Your task to perform on an android device: Empty the shopping cart on amazon.com. Image 0: 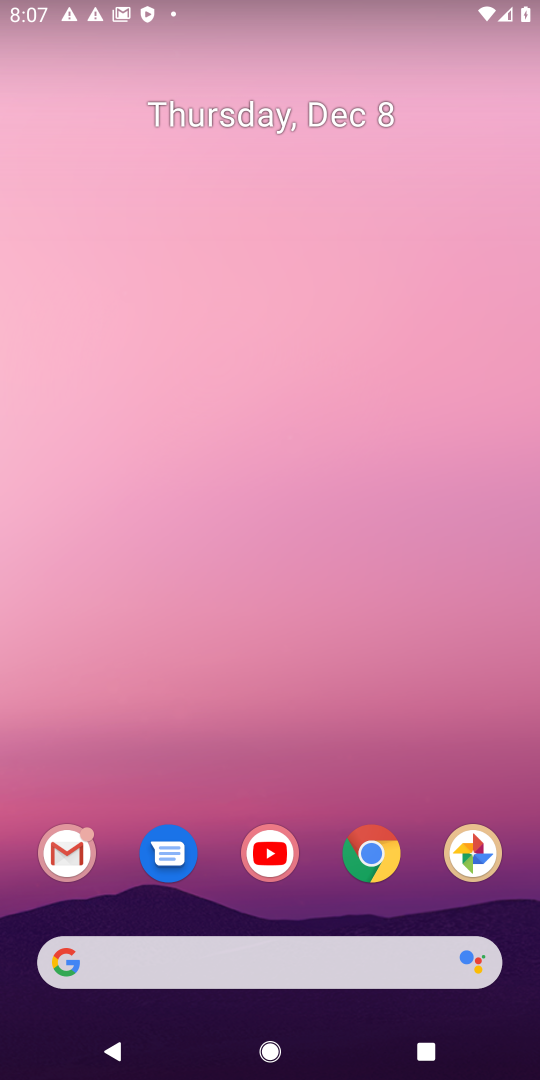
Step 0: click (102, 958)
Your task to perform on an android device: Empty the shopping cart on amazon.com. Image 1: 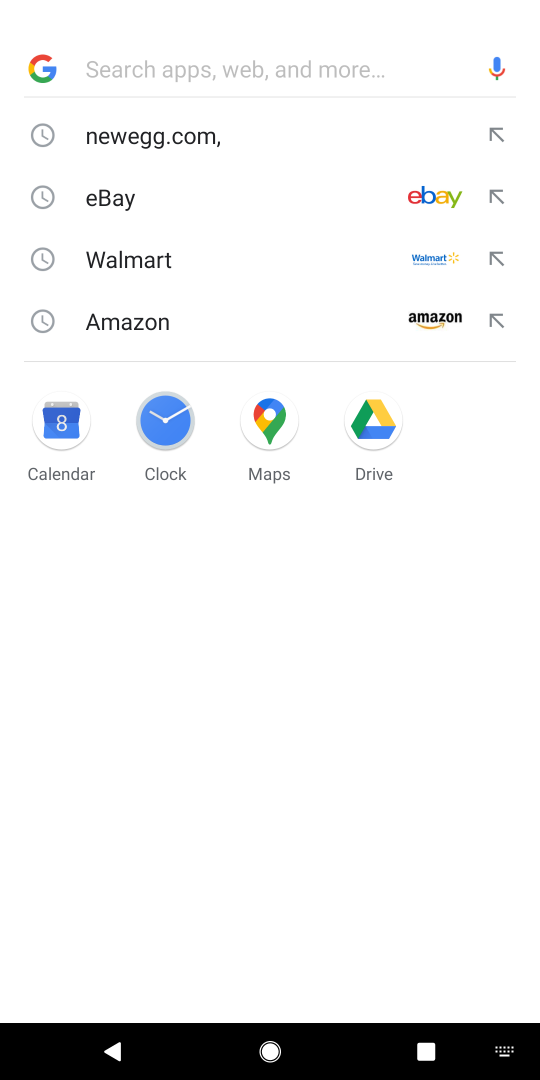
Step 1: click (129, 320)
Your task to perform on an android device: Empty the shopping cart on amazon.com. Image 2: 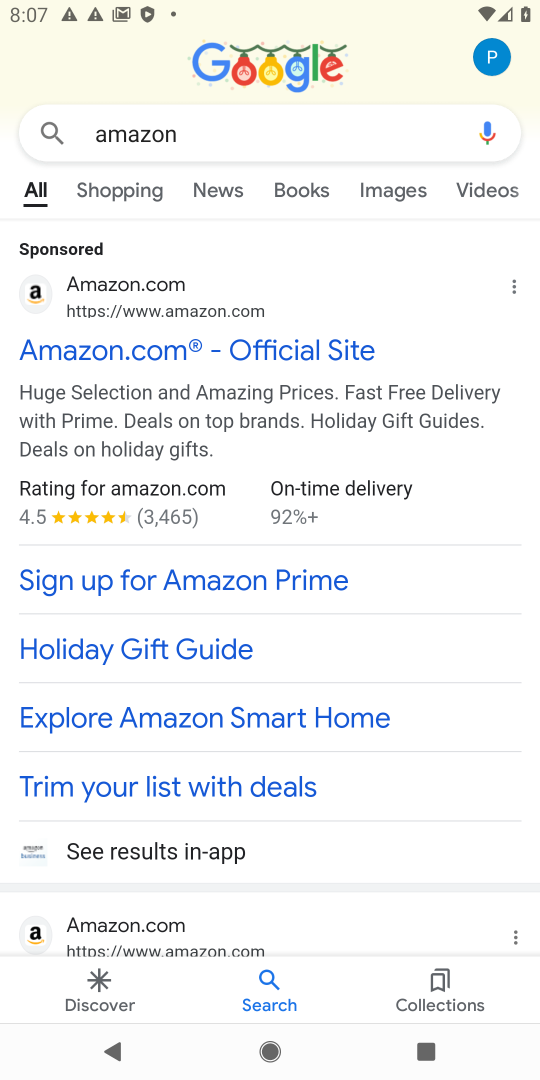
Step 2: click (98, 345)
Your task to perform on an android device: Empty the shopping cart on amazon.com. Image 3: 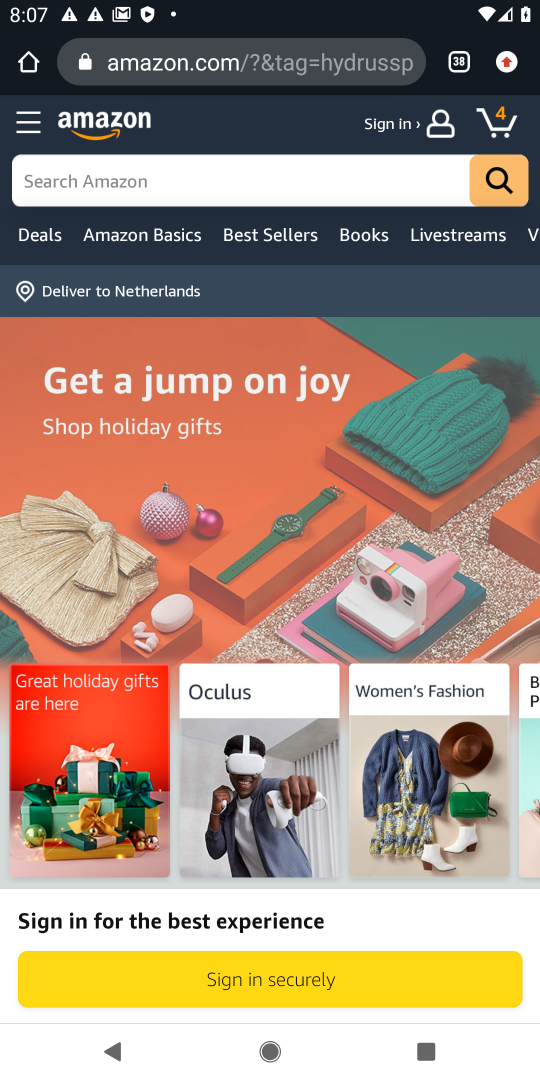
Step 3: click (495, 123)
Your task to perform on an android device: Empty the shopping cart on amazon.com. Image 4: 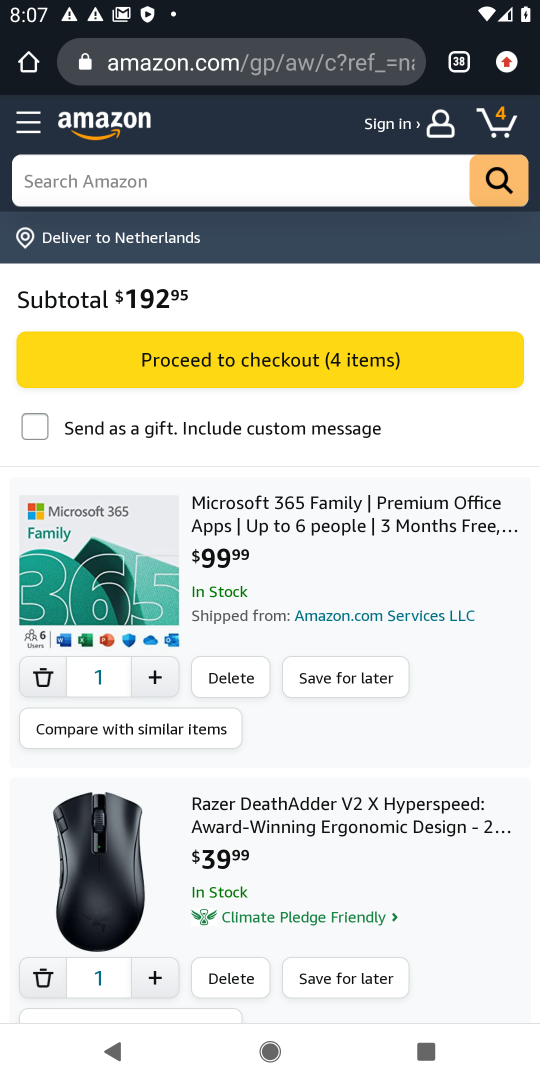
Step 4: click (222, 676)
Your task to perform on an android device: Empty the shopping cart on amazon.com. Image 5: 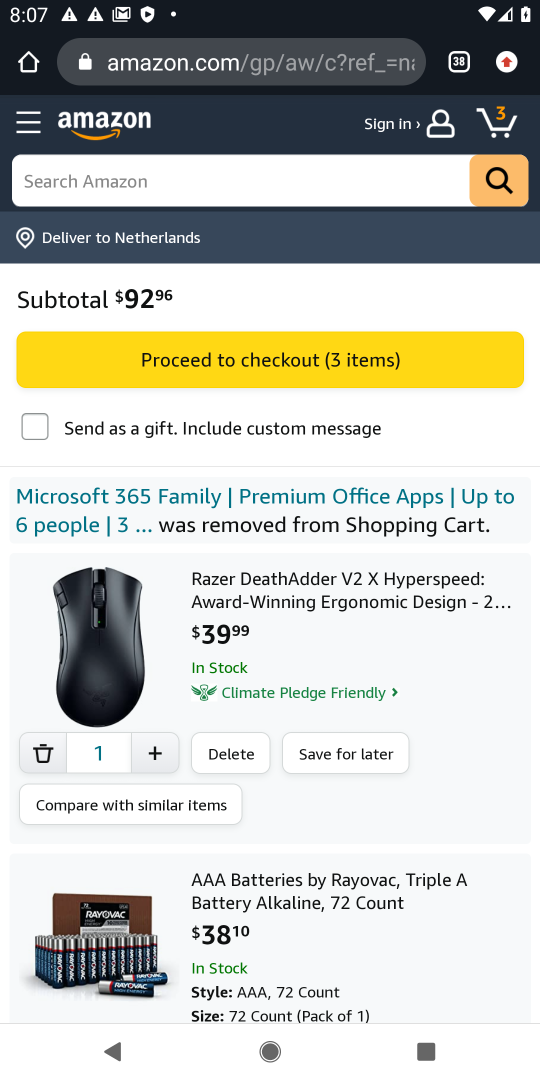
Step 5: click (236, 759)
Your task to perform on an android device: Empty the shopping cart on amazon.com. Image 6: 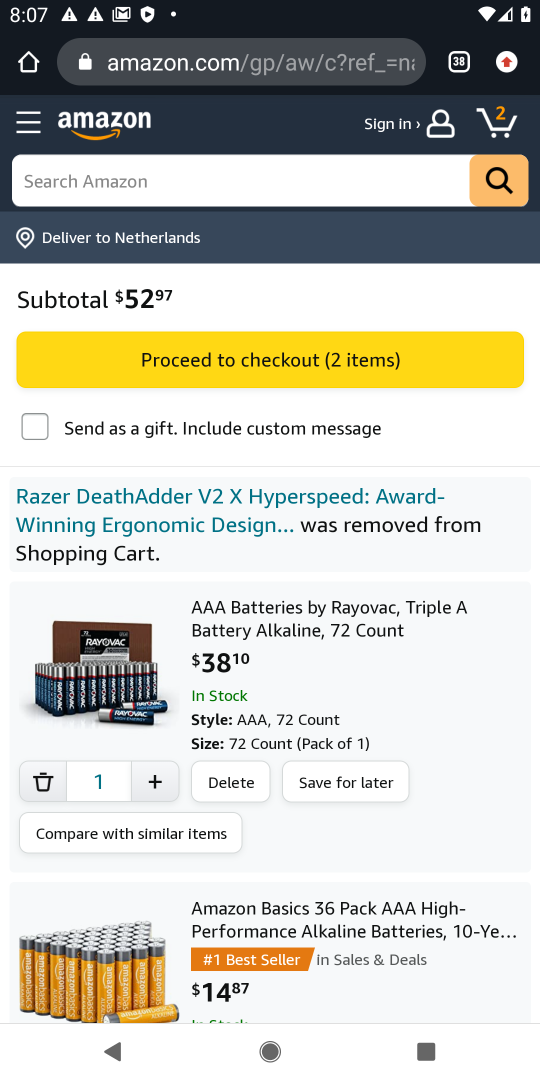
Step 6: click (224, 779)
Your task to perform on an android device: Empty the shopping cart on amazon.com. Image 7: 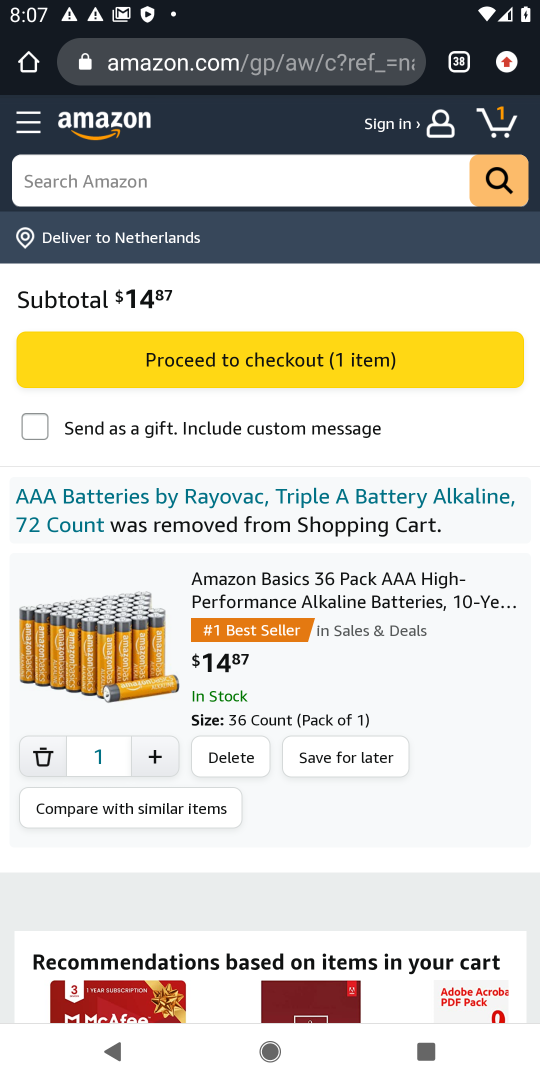
Step 7: click (234, 759)
Your task to perform on an android device: Empty the shopping cart on amazon.com. Image 8: 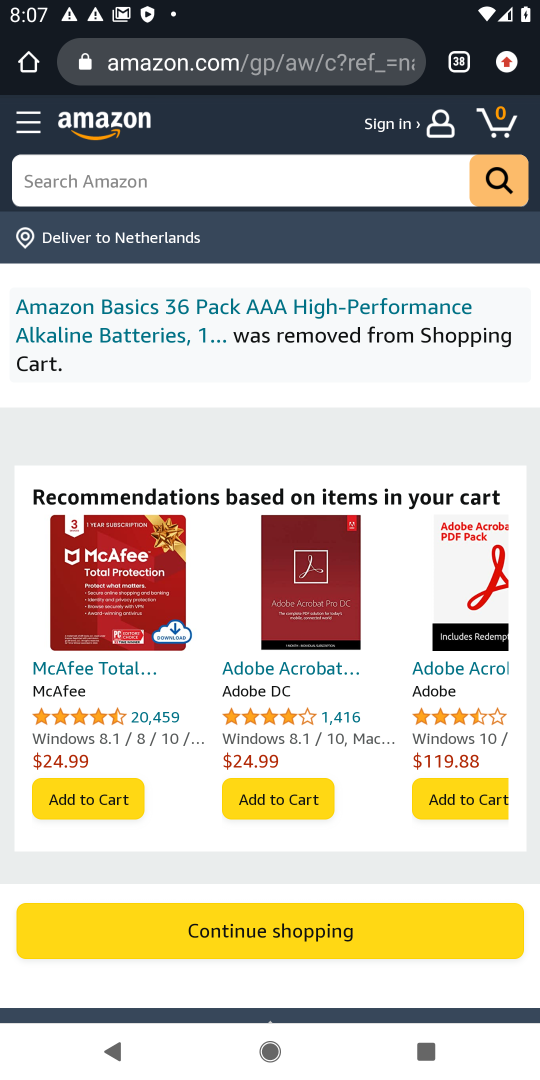
Step 8: task complete